Your task to perform on an android device: Go to Yahoo.com Image 0: 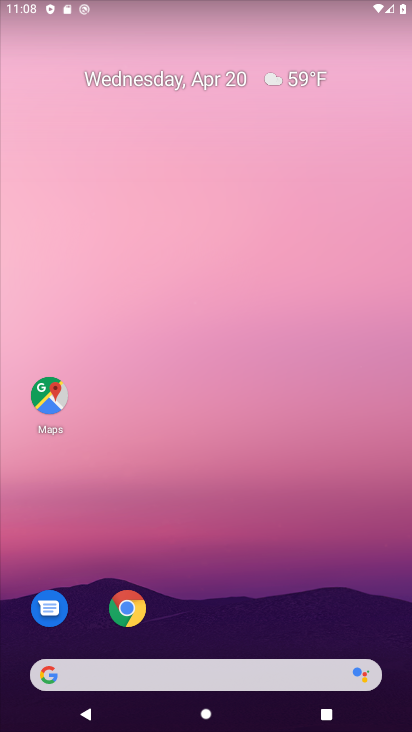
Step 0: click (128, 609)
Your task to perform on an android device: Go to Yahoo.com Image 1: 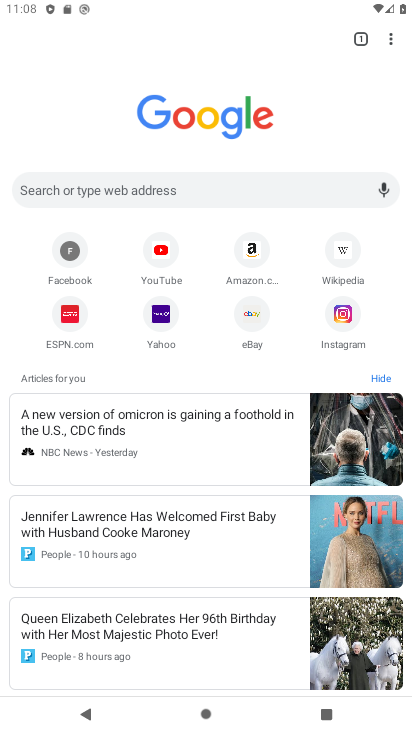
Step 1: click (162, 315)
Your task to perform on an android device: Go to Yahoo.com Image 2: 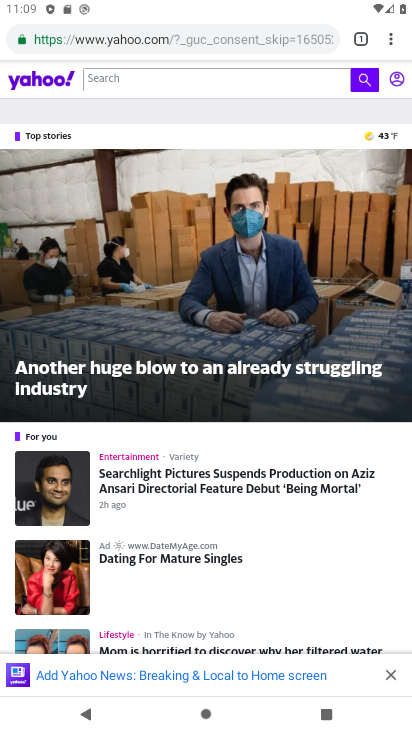
Step 2: task complete